Your task to perform on an android device: star an email in the gmail app Image 0: 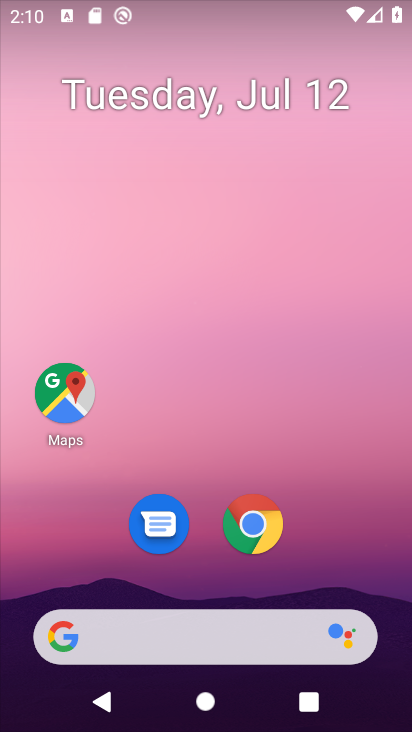
Step 0: drag from (334, 541) to (300, 39)
Your task to perform on an android device: star an email in the gmail app Image 1: 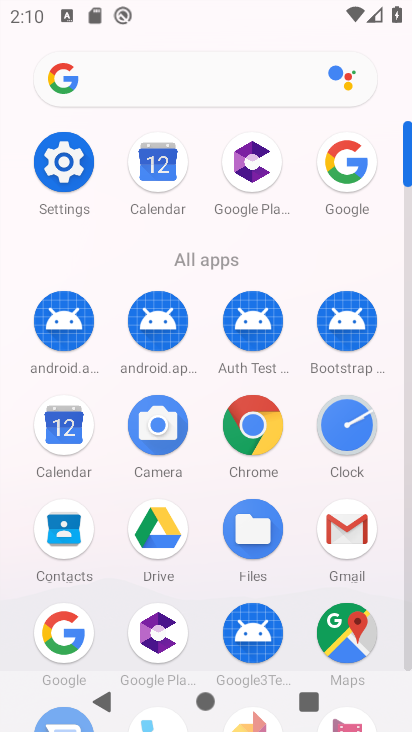
Step 1: click (353, 536)
Your task to perform on an android device: star an email in the gmail app Image 2: 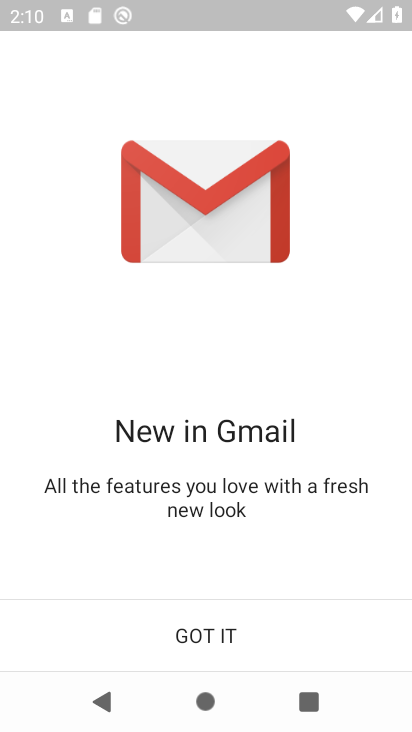
Step 2: click (223, 620)
Your task to perform on an android device: star an email in the gmail app Image 3: 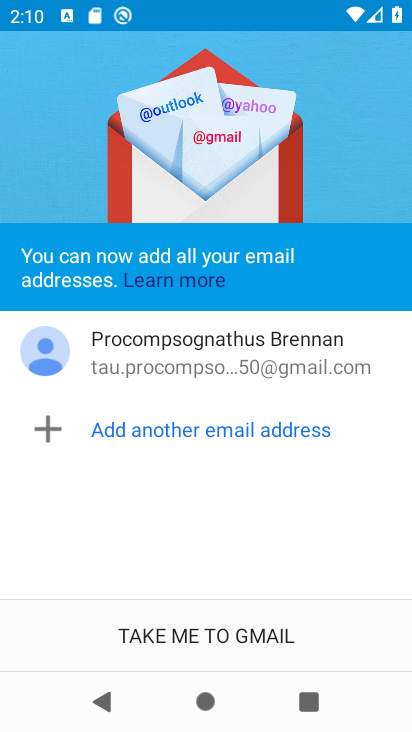
Step 3: click (226, 629)
Your task to perform on an android device: star an email in the gmail app Image 4: 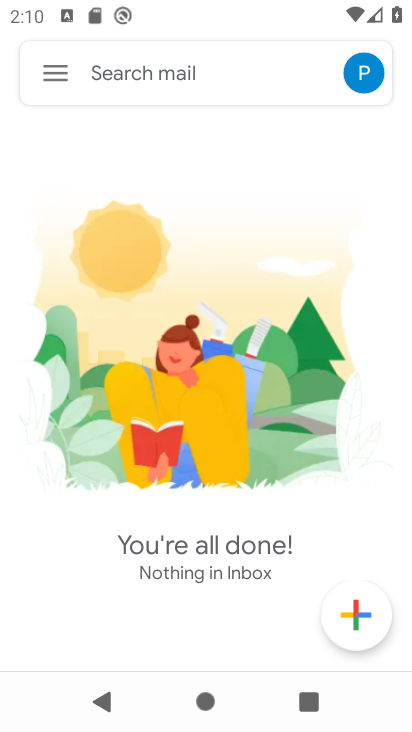
Step 4: click (56, 76)
Your task to perform on an android device: star an email in the gmail app Image 5: 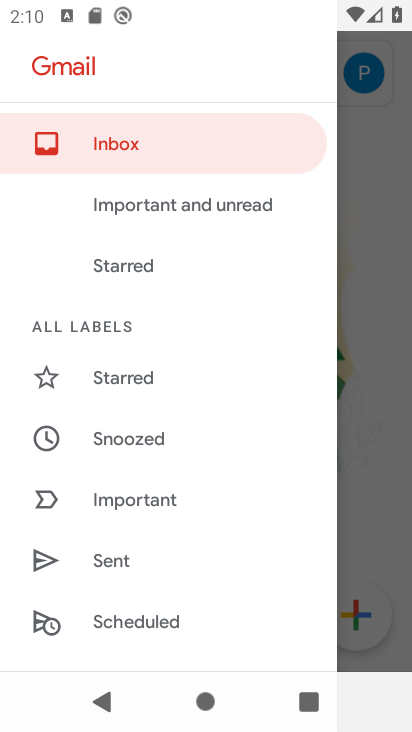
Step 5: drag from (154, 552) to (198, 173)
Your task to perform on an android device: star an email in the gmail app Image 6: 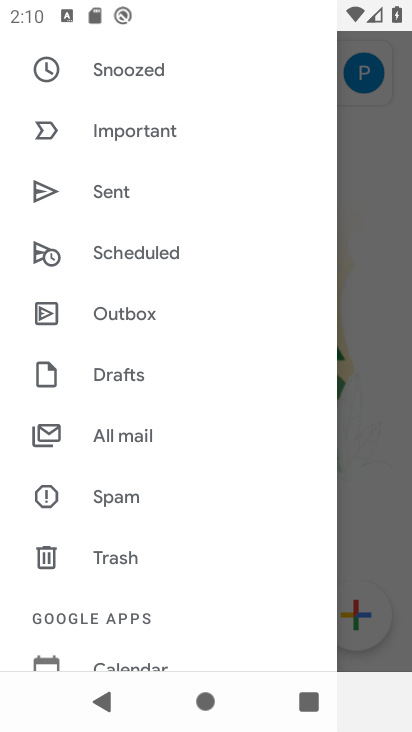
Step 6: click (132, 431)
Your task to perform on an android device: star an email in the gmail app Image 7: 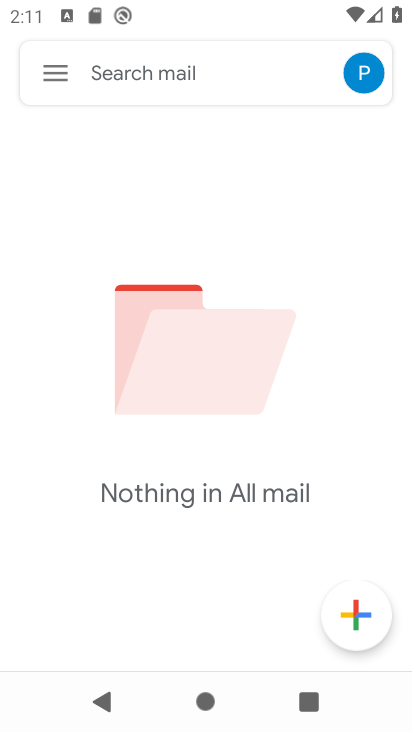
Step 7: task complete